Your task to perform on an android device: toggle translation in the chrome app Image 0: 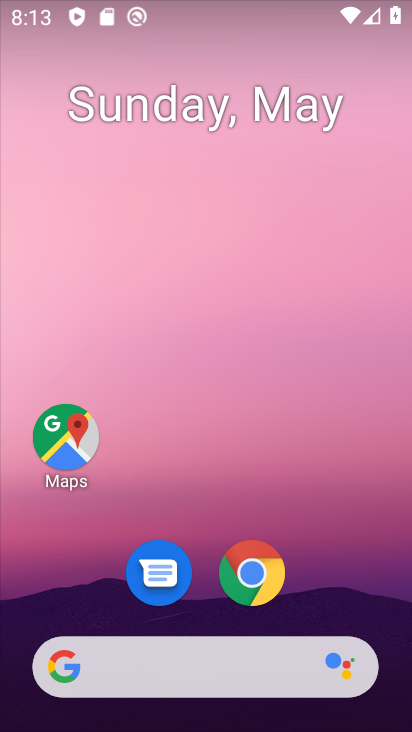
Step 0: click (258, 570)
Your task to perform on an android device: toggle translation in the chrome app Image 1: 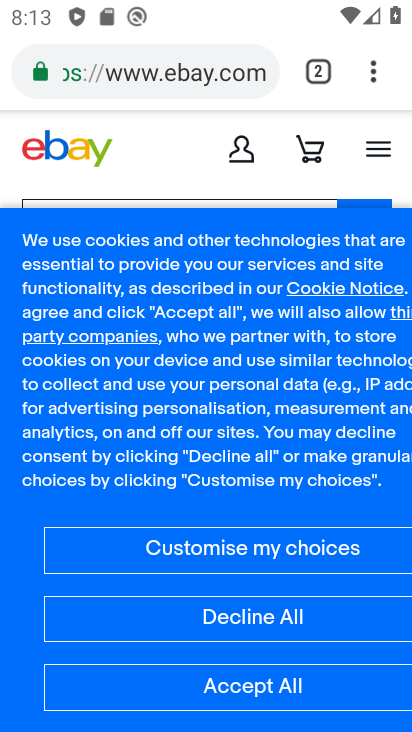
Step 1: click (366, 95)
Your task to perform on an android device: toggle translation in the chrome app Image 2: 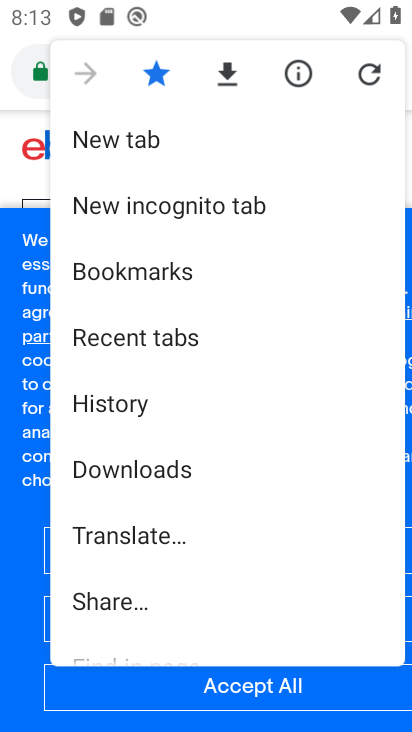
Step 2: drag from (174, 601) to (180, 314)
Your task to perform on an android device: toggle translation in the chrome app Image 3: 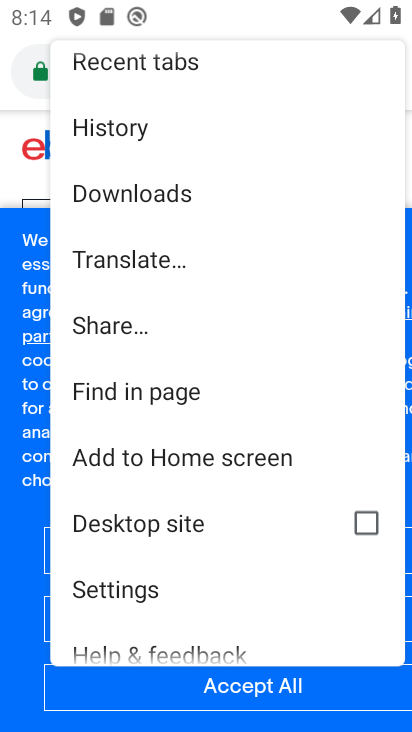
Step 3: click (198, 590)
Your task to perform on an android device: toggle translation in the chrome app Image 4: 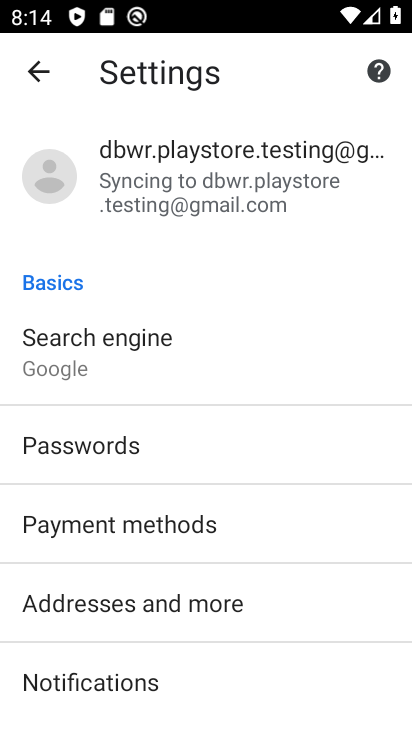
Step 4: drag from (191, 669) to (176, 221)
Your task to perform on an android device: toggle translation in the chrome app Image 5: 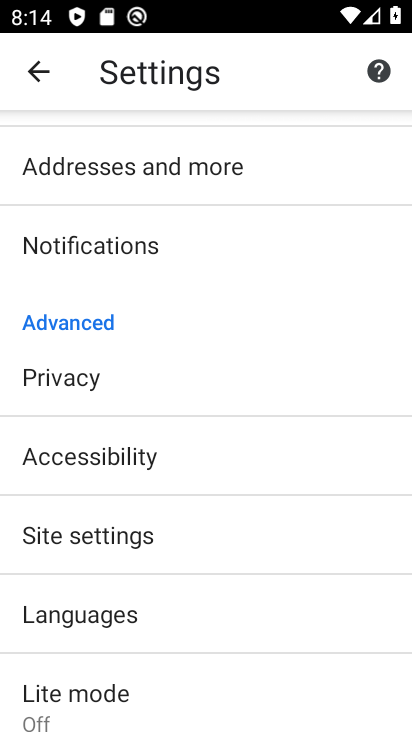
Step 5: click (142, 621)
Your task to perform on an android device: toggle translation in the chrome app Image 6: 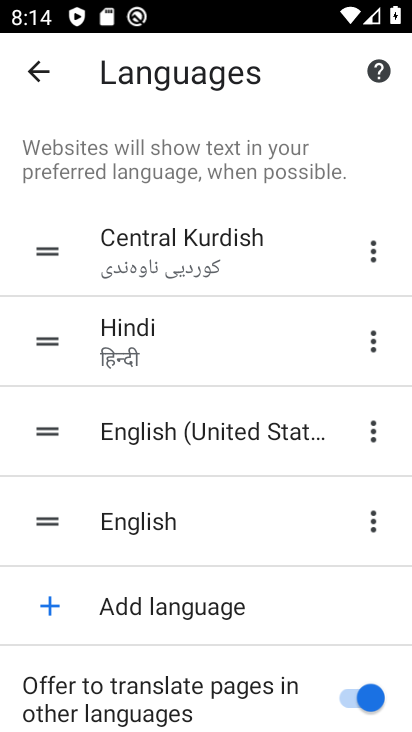
Step 6: click (360, 708)
Your task to perform on an android device: toggle translation in the chrome app Image 7: 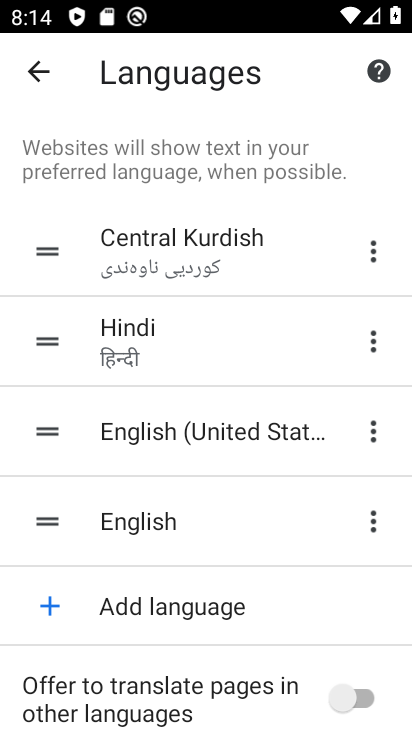
Step 7: task complete